Your task to perform on an android device: Open calendar and show me the first week of next month Image 0: 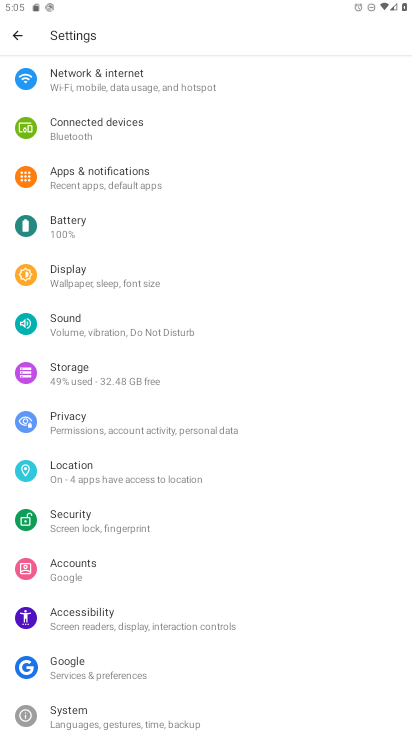
Step 0: press home button
Your task to perform on an android device: Open calendar and show me the first week of next month Image 1: 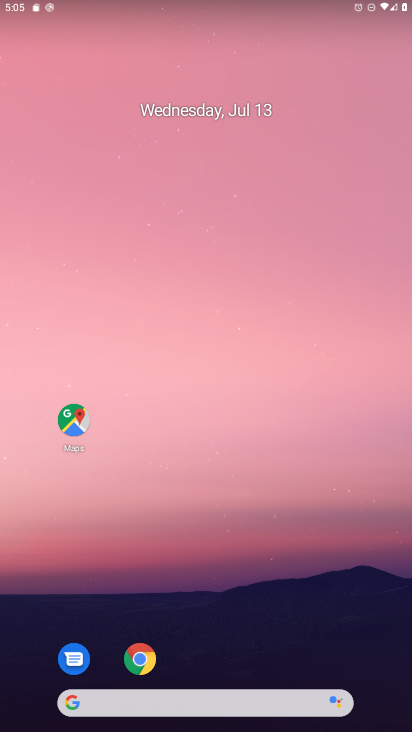
Step 1: drag from (306, 670) to (323, 101)
Your task to perform on an android device: Open calendar and show me the first week of next month Image 2: 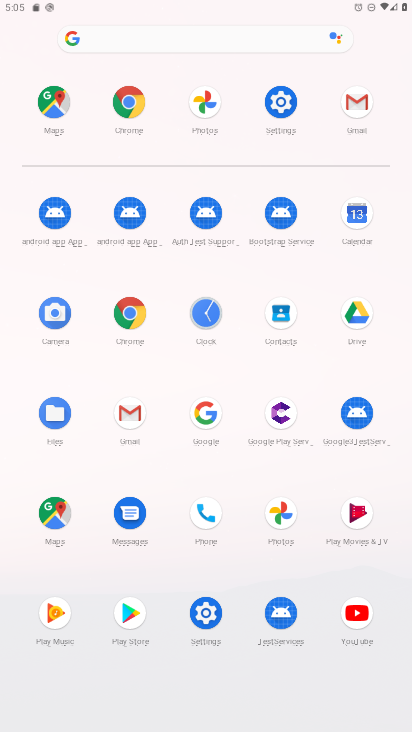
Step 2: click (361, 215)
Your task to perform on an android device: Open calendar and show me the first week of next month Image 3: 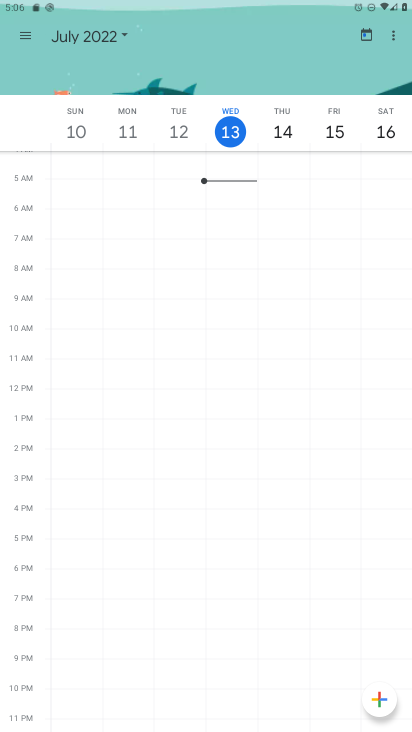
Step 3: click (108, 42)
Your task to perform on an android device: Open calendar and show me the first week of next month Image 4: 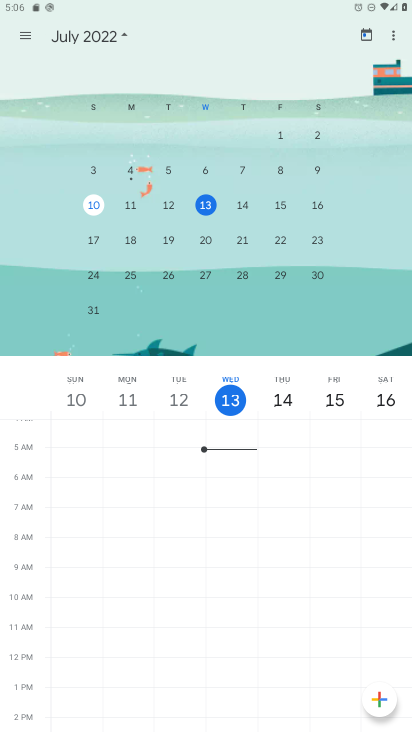
Step 4: drag from (318, 232) to (110, 234)
Your task to perform on an android device: Open calendar and show me the first week of next month Image 5: 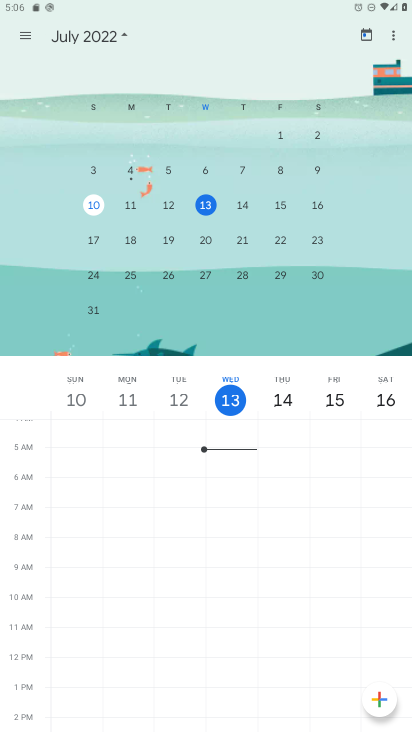
Step 5: drag from (320, 212) to (104, 219)
Your task to perform on an android device: Open calendar and show me the first week of next month Image 6: 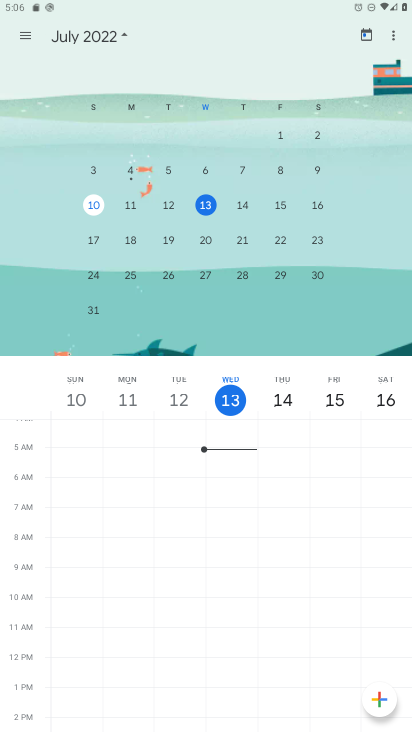
Step 6: drag from (316, 222) to (47, 210)
Your task to perform on an android device: Open calendar and show me the first week of next month Image 7: 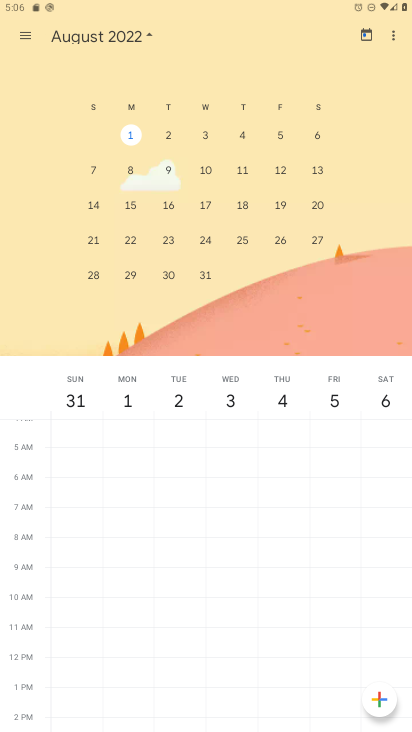
Step 7: click (210, 132)
Your task to perform on an android device: Open calendar and show me the first week of next month Image 8: 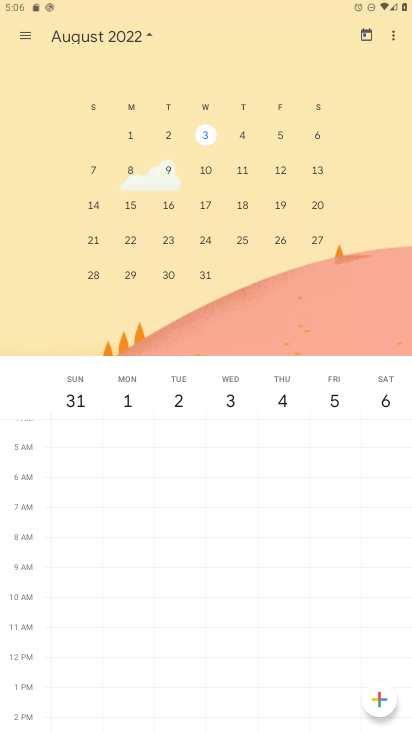
Step 8: task complete